Your task to perform on an android device: Go to settings Image 0: 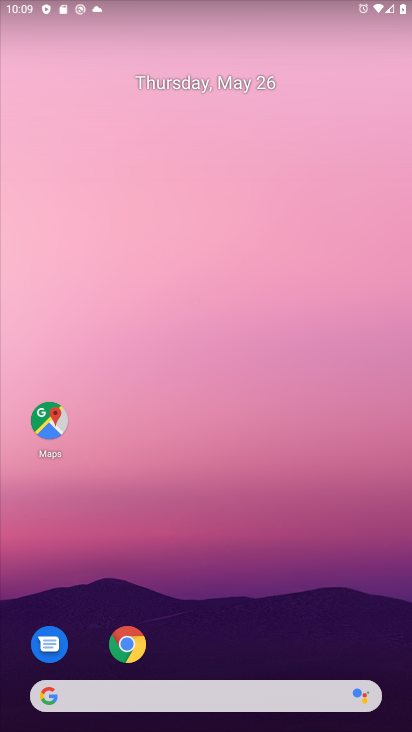
Step 0: drag from (208, 662) to (232, 181)
Your task to perform on an android device: Go to settings Image 1: 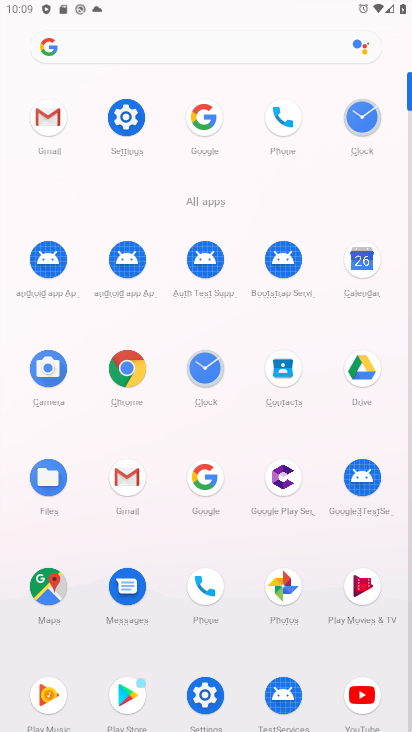
Step 1: click (149, 114)
Your task to perform on an android device: Go to settings Image 2: 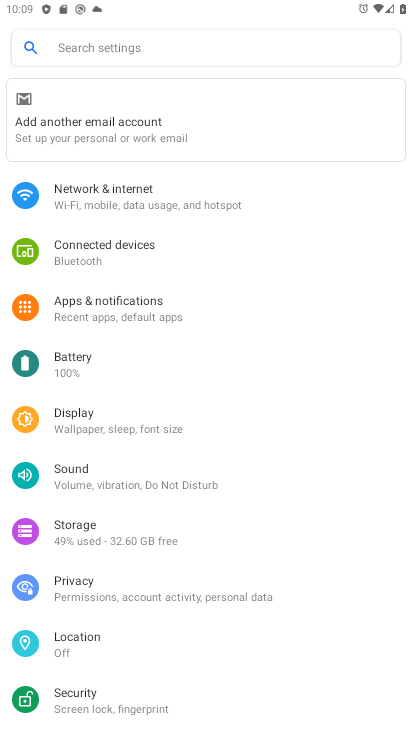
Step 2: task complete